Your task to perform on an android device: turn off data saver in the chrome app Image 0: 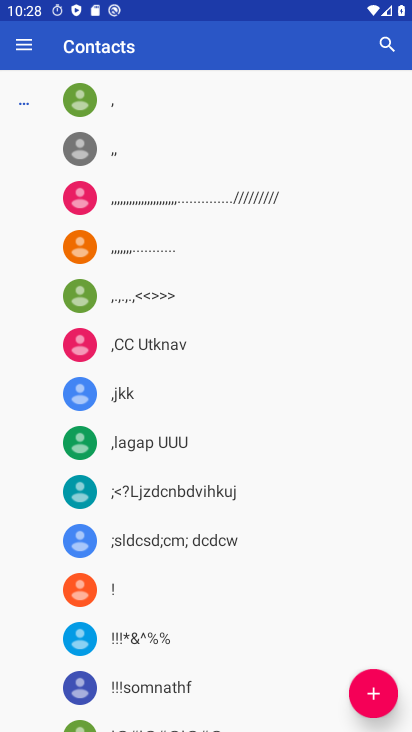
Step 0: press home button
Your task to perform on an android device: turn off data saver in the chrome app Image 1: 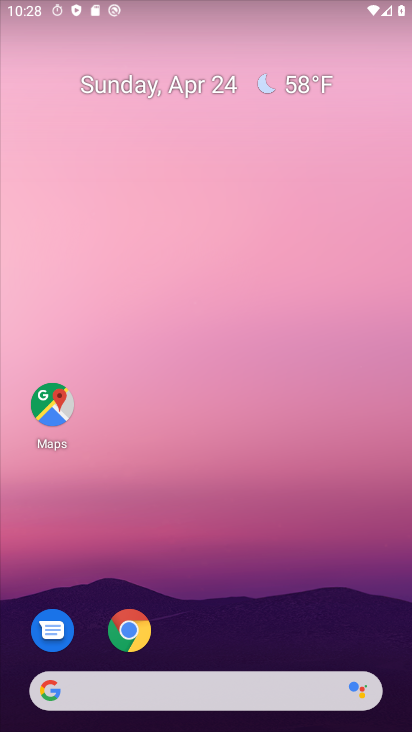
Step 1: drag from (274, 643) to (384, 187)
Your task to perform on an android device: turn off data saver in the chrome app Image 2: 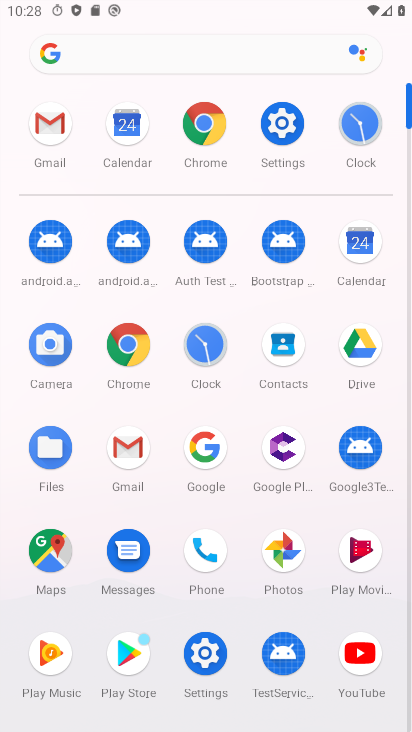
Step 2: click (213, 147)
Your task to perform on an android device: turn off data saver in the chrome app Image 3: 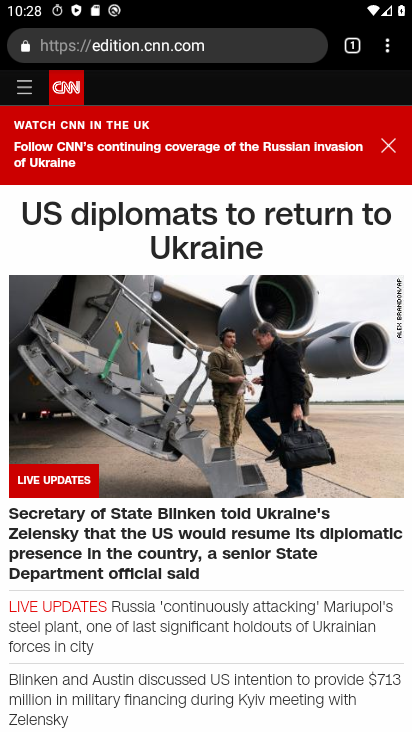
Step 3: click (390, 52)
Your task to perform on an android device: turn off data saver in the chrome app Image 4: 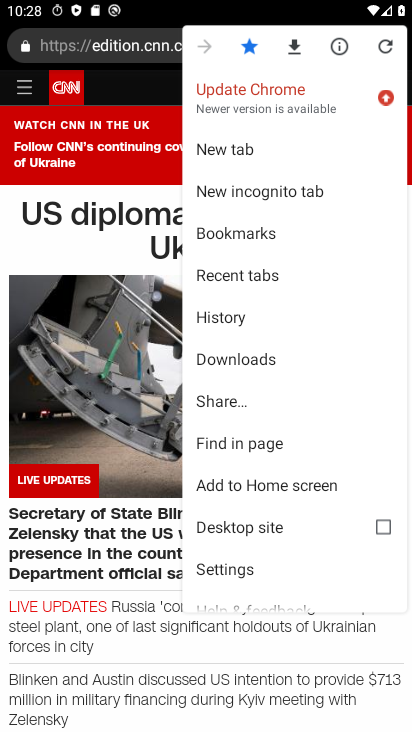
Step 4: click (270, 571)
Your task to perform on an android device: turn off data saver in the chrome app Image 5: 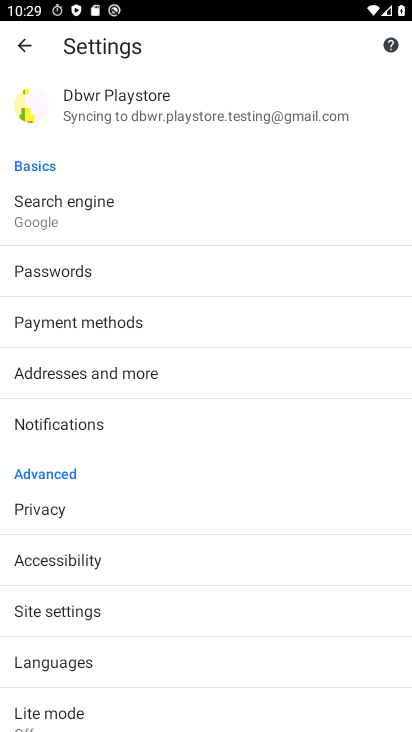
Step 5: drag from (182, 617) to (307, 238)
Your task to perform on an android device: turn off data saver in the chrome app Image 6: 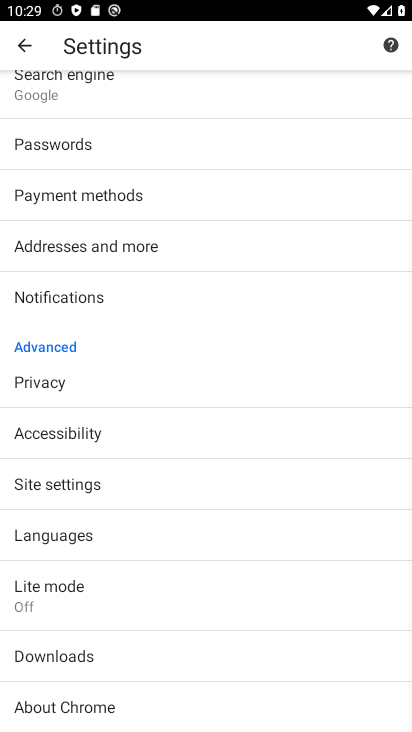
Step 6: click (150, 603)
Your task to perform on an android device: turn off data saver in the chrome app Image 7: 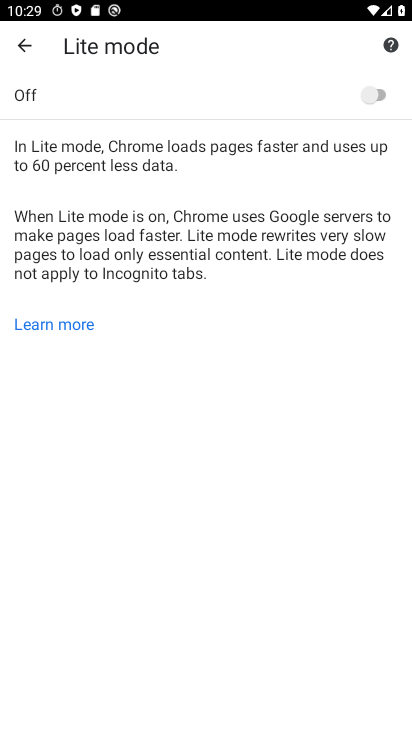
Step 7: task complete